Your task to perform on an android device: Open Reddit.com Image 0: 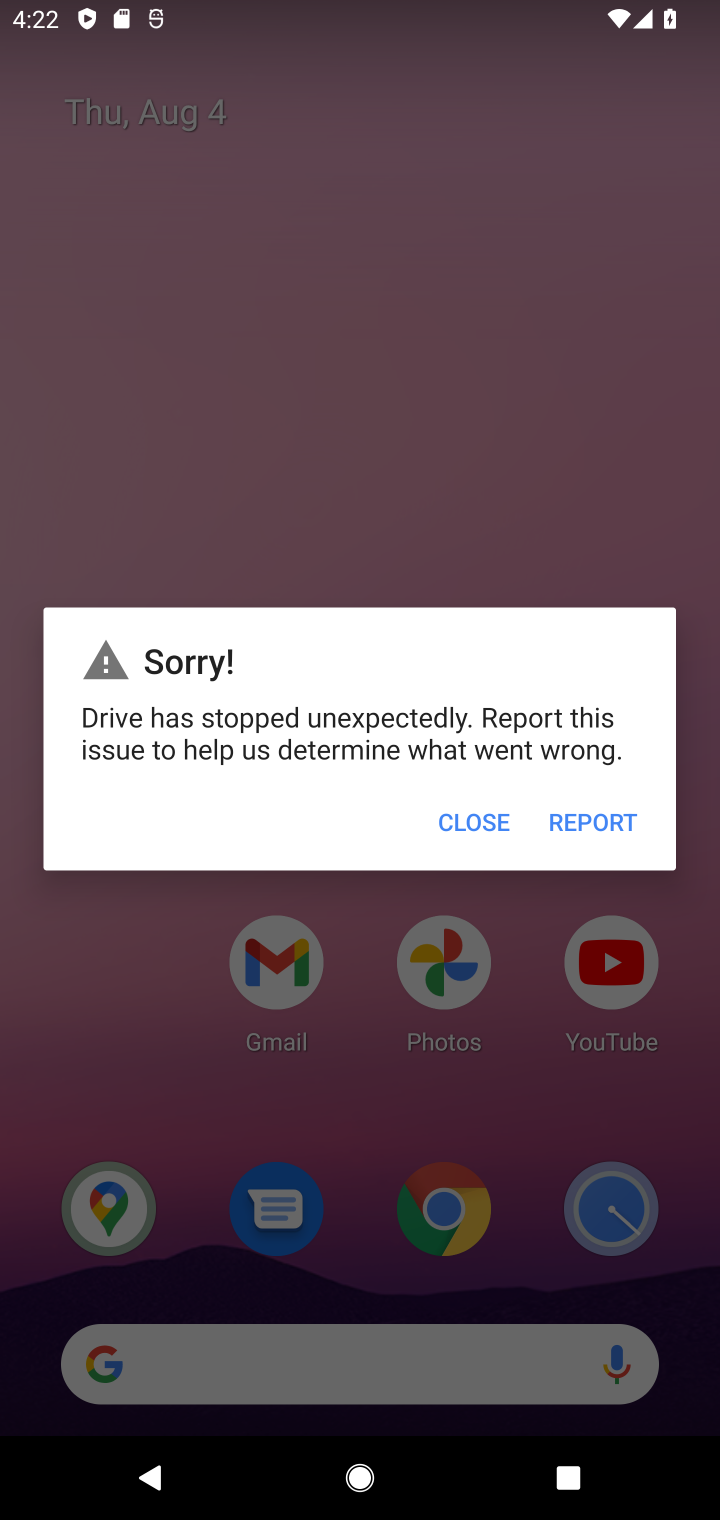
Step 0: press back button
Your task to perform on an android device: Open Reddit.com Image 1: 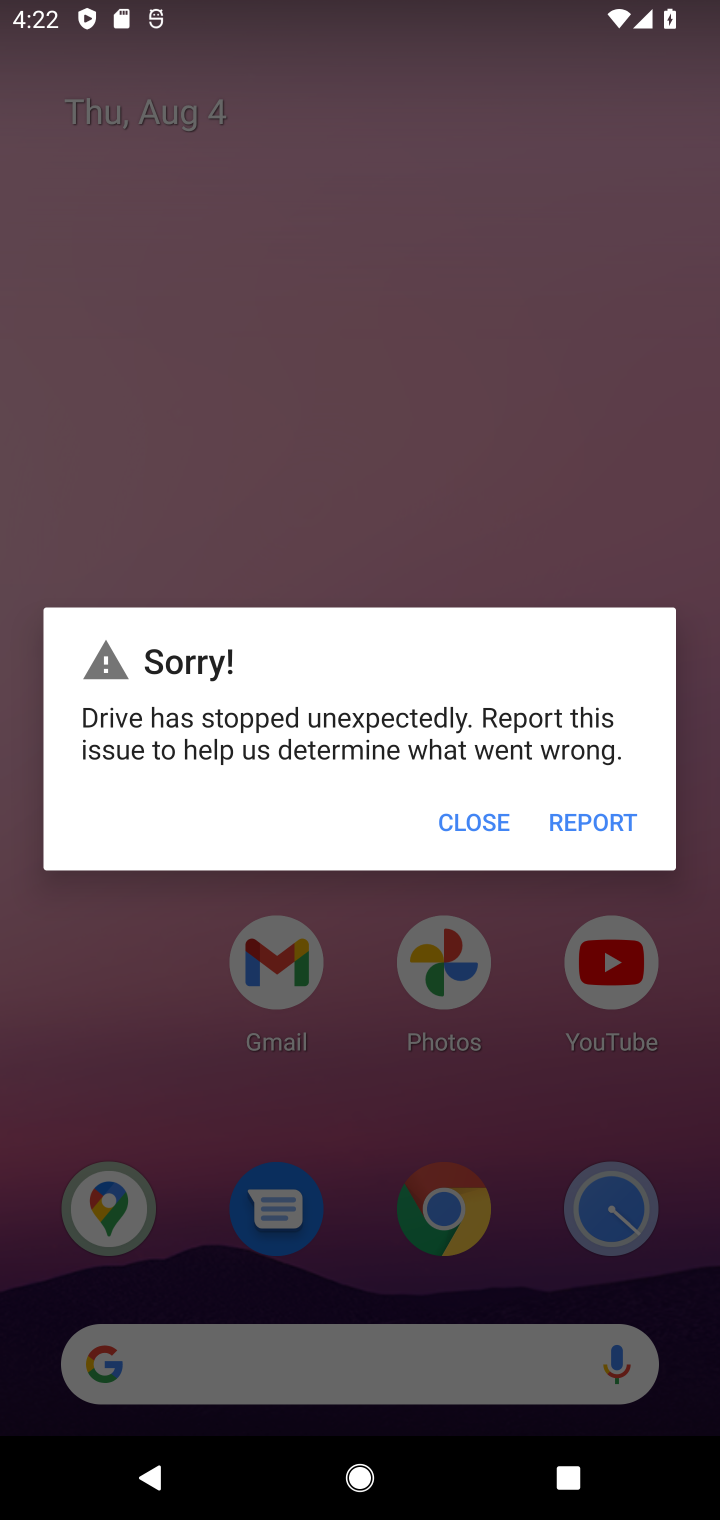
Step 1: press home button
Your task to perform on an android device: Open Reddit.com Image 2: 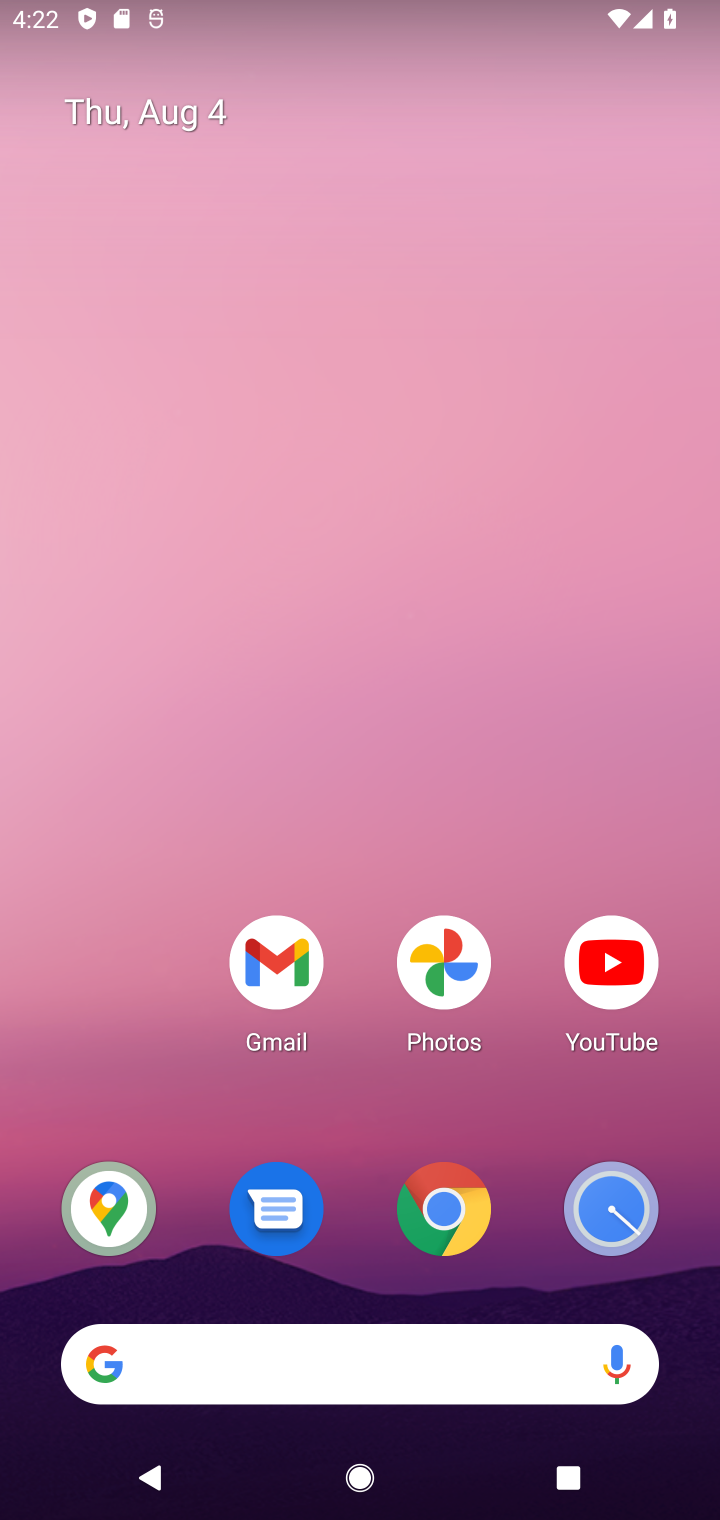
Step 2: click (439, 1233)
Your task to perform on an android device: Open Reddit.com Image 3: 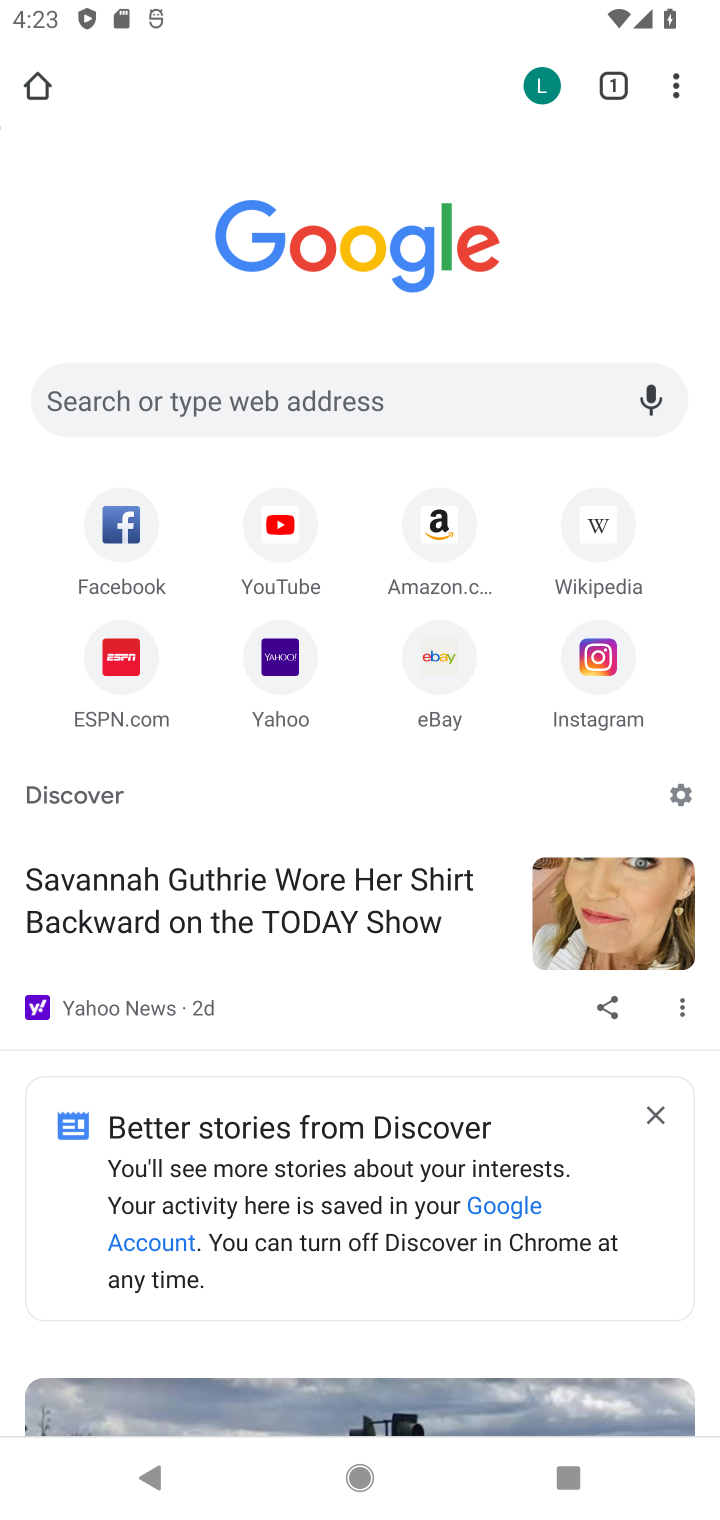
Step 3: click (401, 387)
Your task to perform on an android device: Open Reddit.com Image 4: 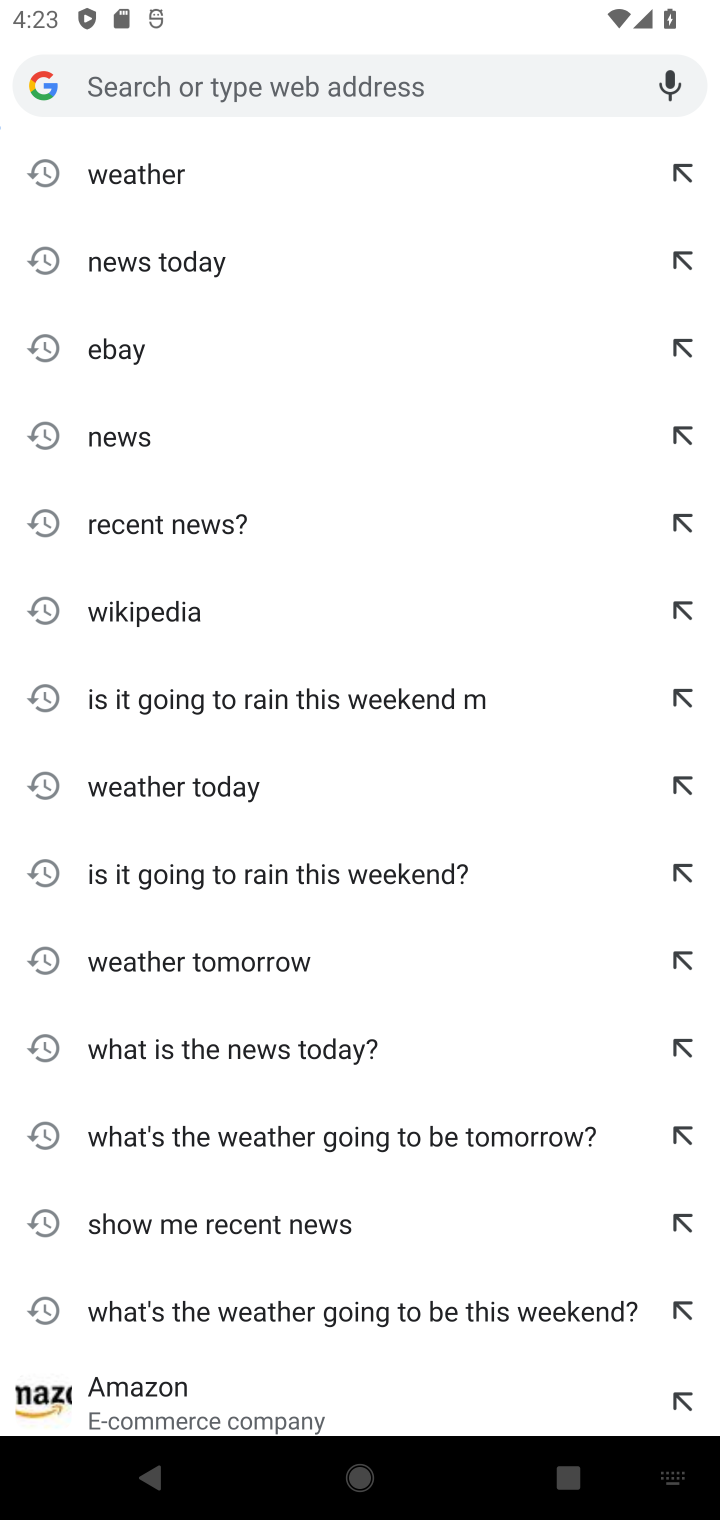
Step 4: type "www.reddit.com"
Your task to perform on an android device: Open Reddit.com Image 5: 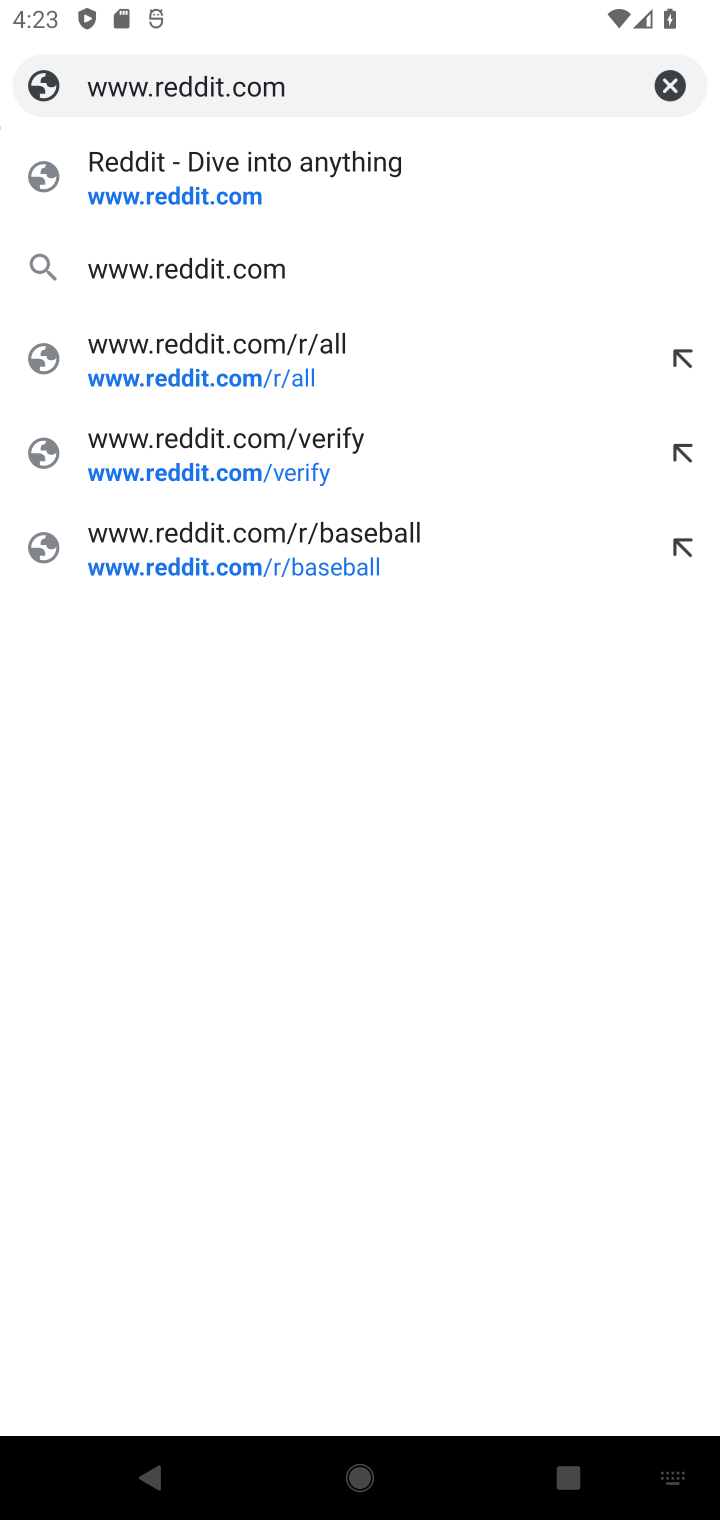
Step 5: click (108, 166)
Your task to perform on an android device: Open Reddit.com Image 6: 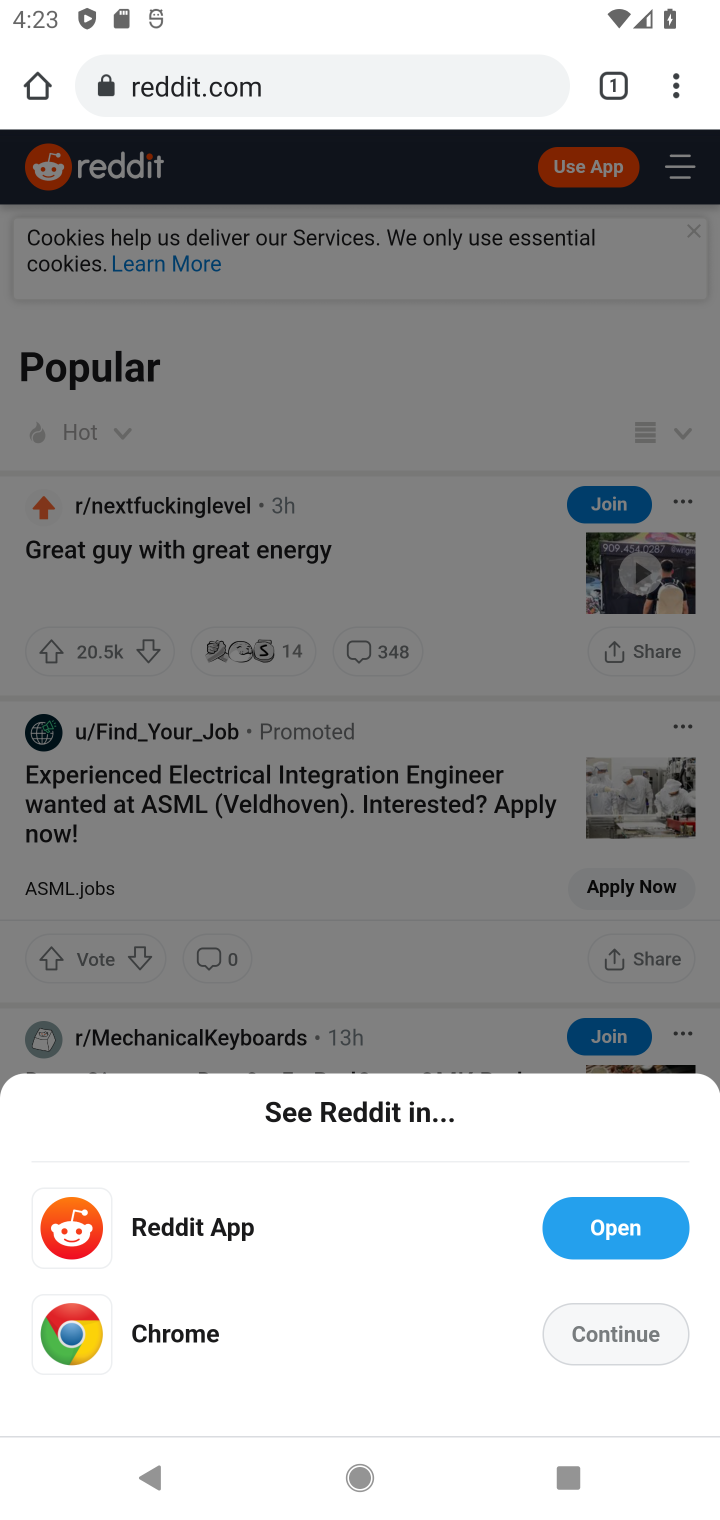
Step 6: task complete